Your task to perform on an android device: What is the news today? Image 0: 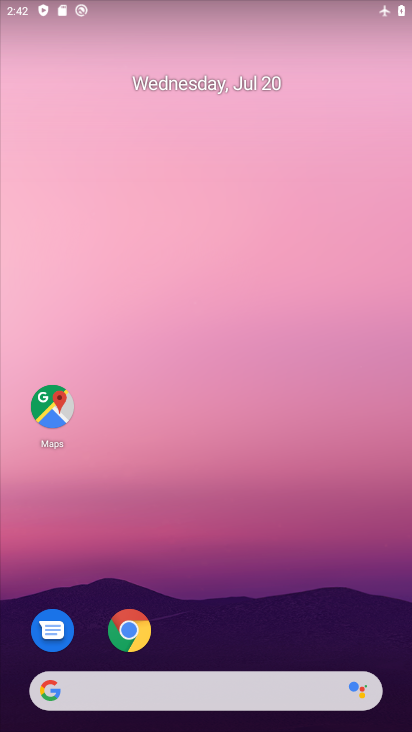
Step 0: drag from (278, 648) to (191, 201)
Your task to perform on an android device: What is the news today? Image 1: 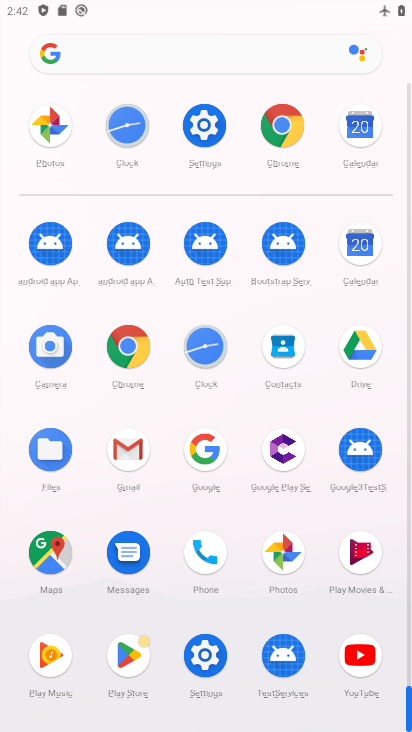
Step 1: click (198, 132)
Your task to perform on an android device: What is the news today? Image 2: 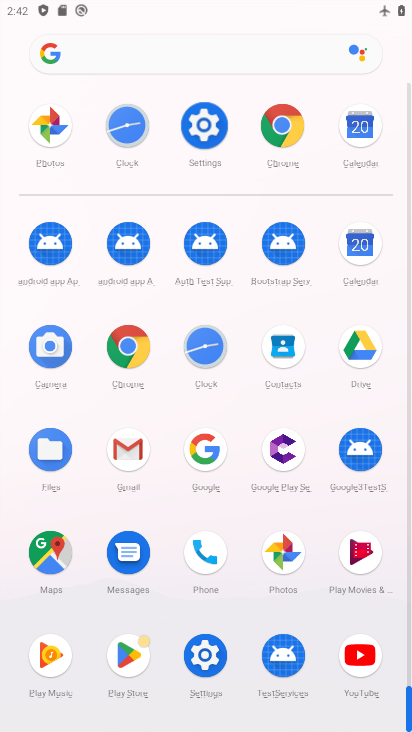
Step 2: click (198, 132)
Your task to perform on an android device: What is the news today? Image 3: 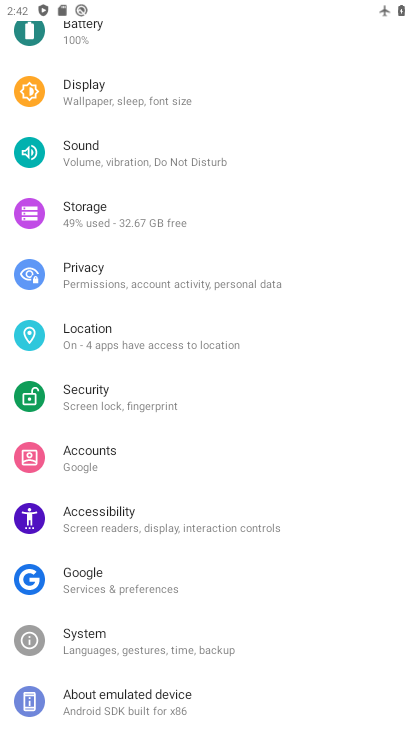
Step 3: drag from (86, 105) to (113, 685)
Your task to perform on an android device: What is the news today? Image 4: 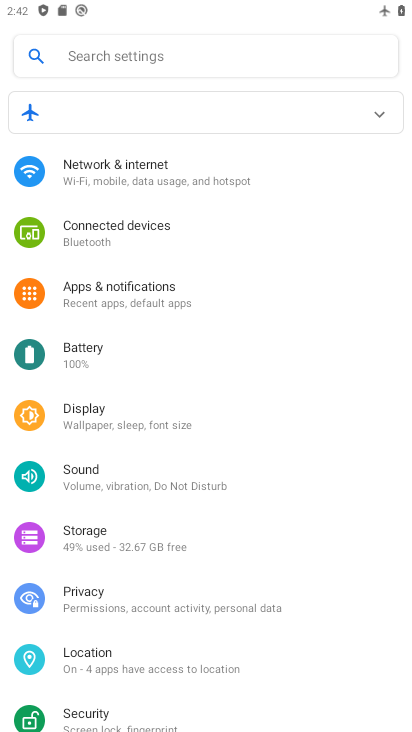
Step 4: click (139, 182)
Your task to perform on an android device: What is the news today? Image 5: 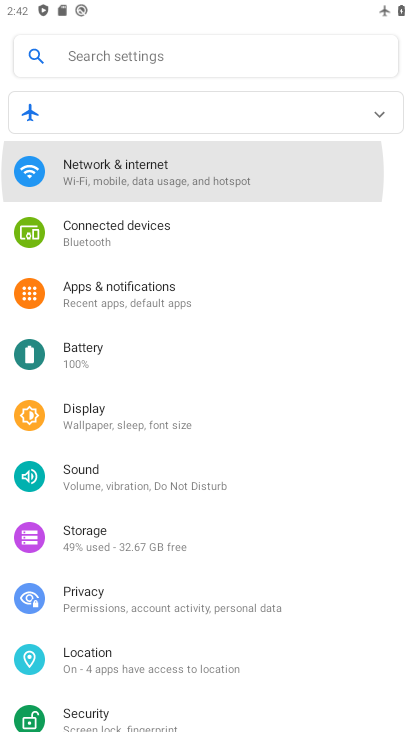
Step 5: click (139, 182)
Your task to perform on an android device: What is the news today? Image 6: 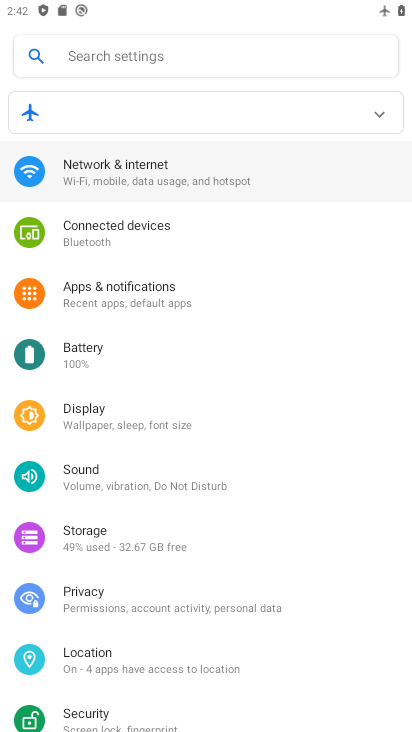
Step 6: click (139, 182)
Your task to perform on an android device: What is the news today? Image 7: 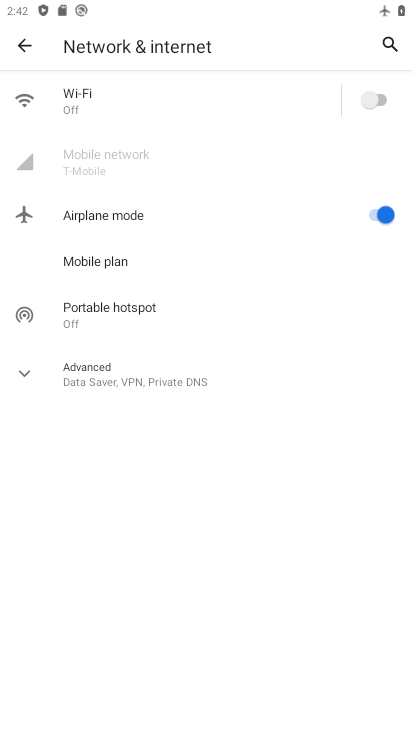
Step 7: click (388, 212)
Your task to perform on an android device: What is the news today? Image 8: 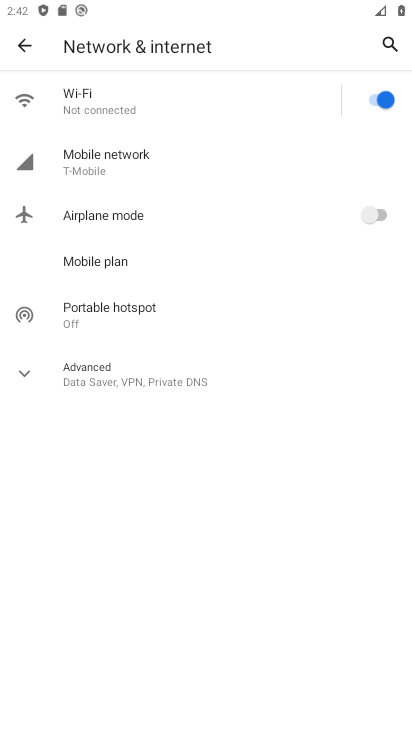
Step 8: click (382, 96)
Your task to perform on an android device: What is the news today? Image 9: 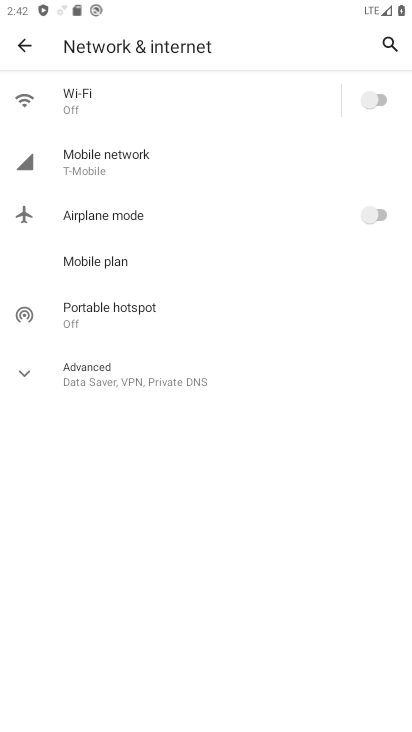
Step 9: click (382, 95)
Your task to perform on an android device: What is the news today? Image 10: 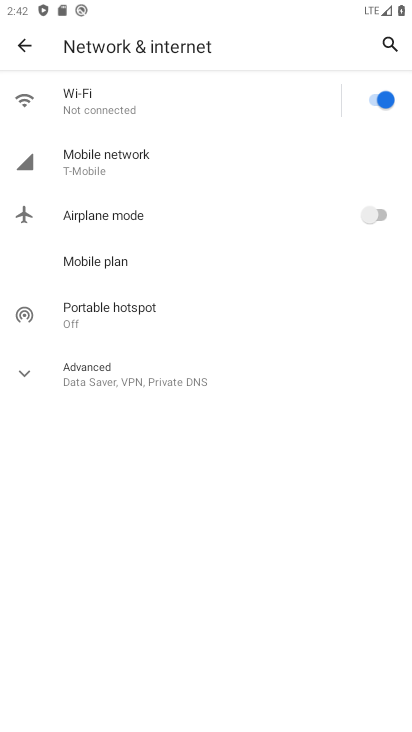
Step 10: click (26, 45)
Your task to perform on an android device: What is the news today? Image 11: 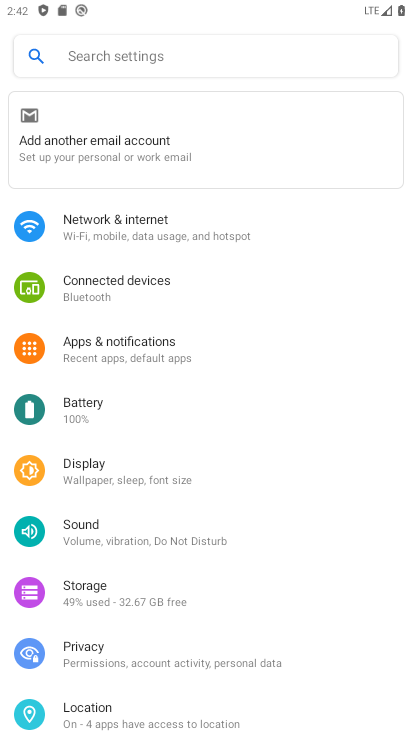
Step 11: press back button
Your task to perform on an android device: What is the news today? Image 12: 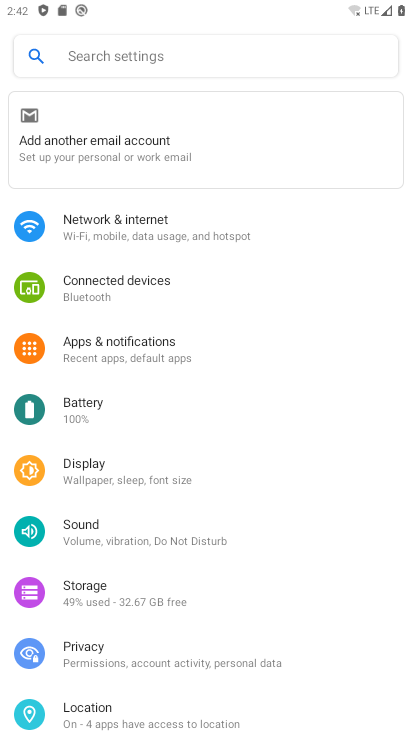
Step 12: press back button
Your task to perform on an android device: What is the news today? Image 13: 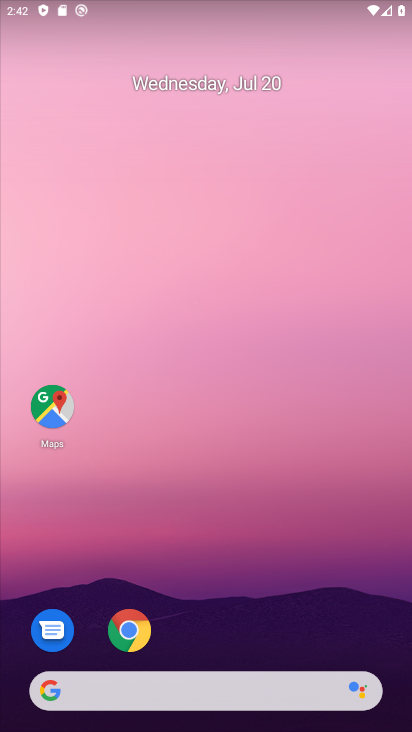
Step 13: drag from (218, 510) to (160, 17)
Your task to perform on an android device: What is the news today? Image 14: 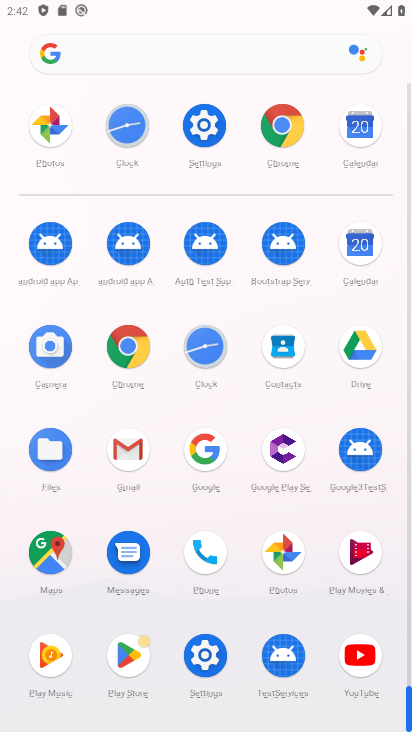
Step 14: click (285, 117)
Your task to perform on an android device: What is the news today? Image 15: 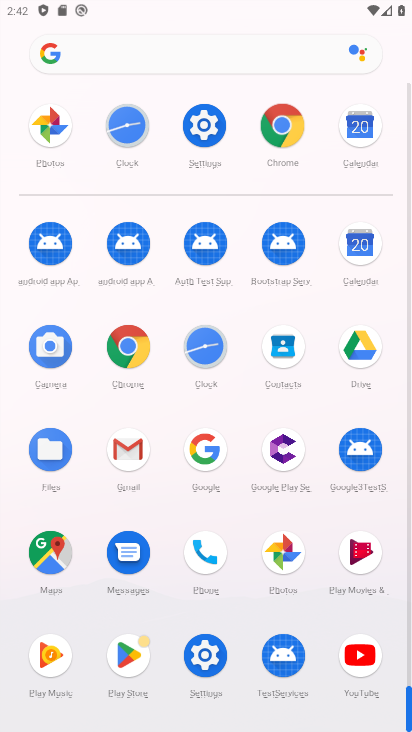
Step 15: click (286, 117)
Your task to perform on an android device: What is the news today? Image 16: 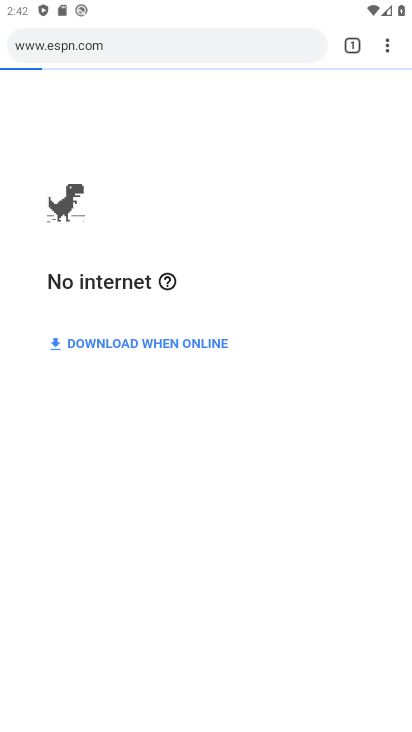
Step 16: task complete